Your task to perform on an android device: set default search engine in the chrome app Image 0: 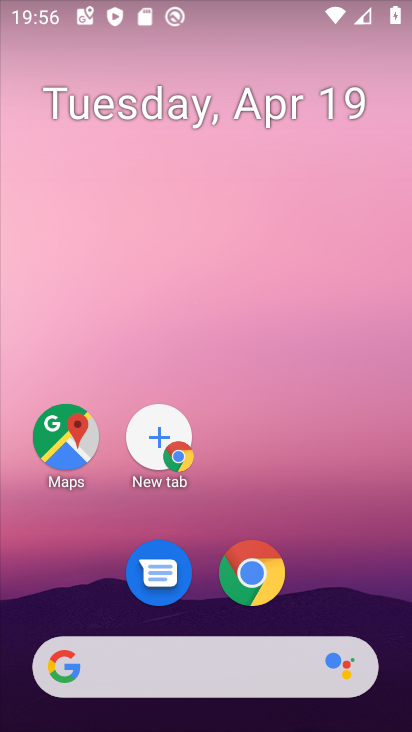
Step 0: click (256, 574)
Your task to perform on an android device: set default search engine in the chrome app Image 1: 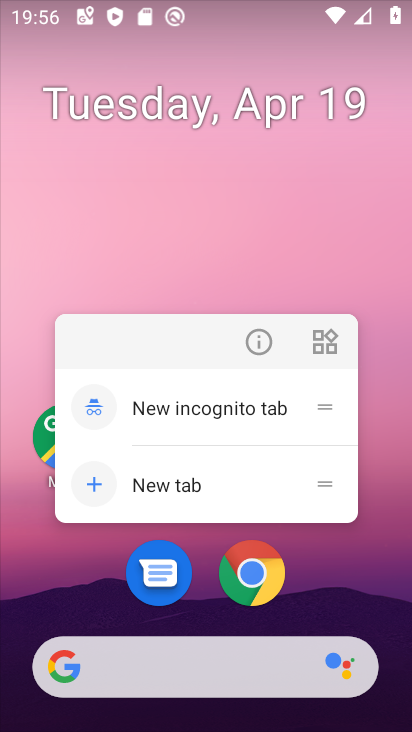
Step 1: click (256, 574)
Your task to perform on an android device: set default search engine in the chrome app Image 2: 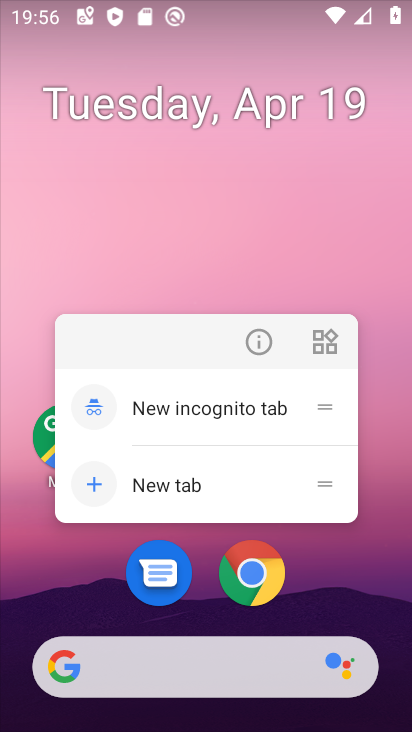
Step 2: click (256, 574)
Your task to perform on an android device: set default search engine in the chrome app Image 3: 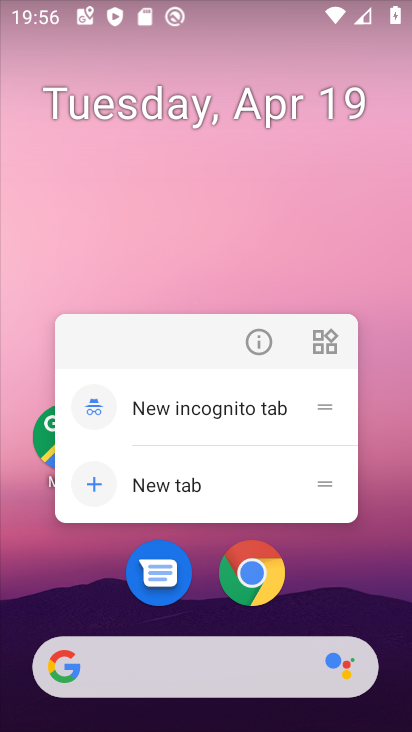
Step 3: click (256, 574)
Your task to perform on an android device: set default search engine in the chrome app Image 4: 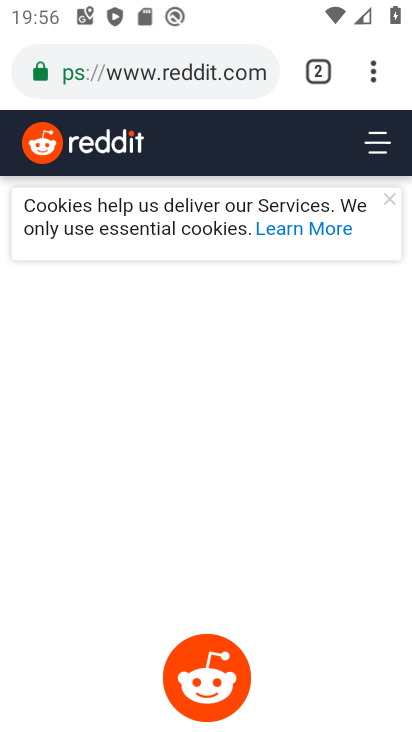
Step 4: click (369, 71)
Your task to perform on an android device: set default search engine in the chrome app Image 5: 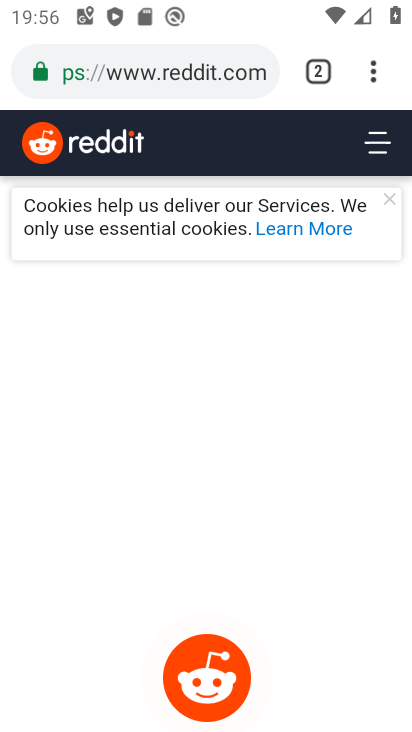
Step 5: click (369, 71)
Your task to perform on an android device: set default search engine in the chrome app Image 6: 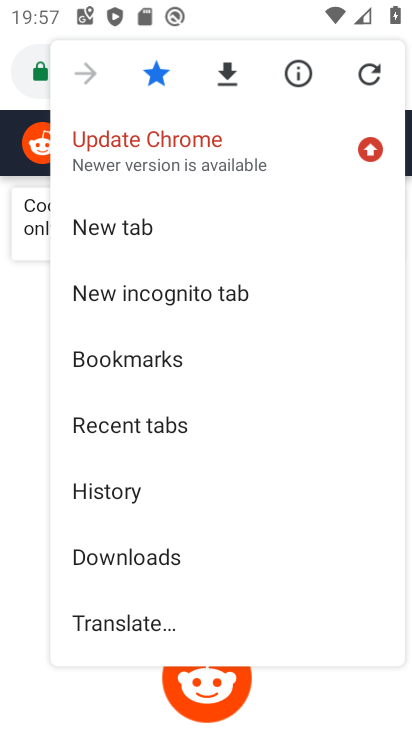
Step 6: click (411, 127)
Your task to perform on an android device: set default search engine in the chrome app Image 7: 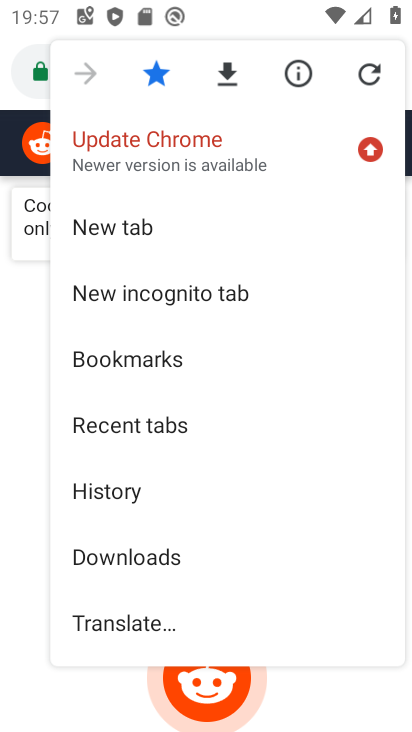
Step 7: drag from (397, 111) to (394, 28)
Your task to perform on an android device: set default search engine in the chrome app Image 8: 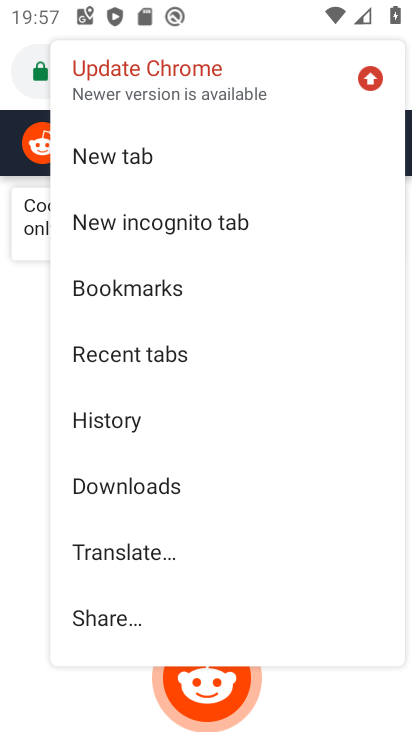
Step 8: drag from (337, 538) to (330, 80)
Your task to perform on an android device: set default search engine in the chrome app Image 9: 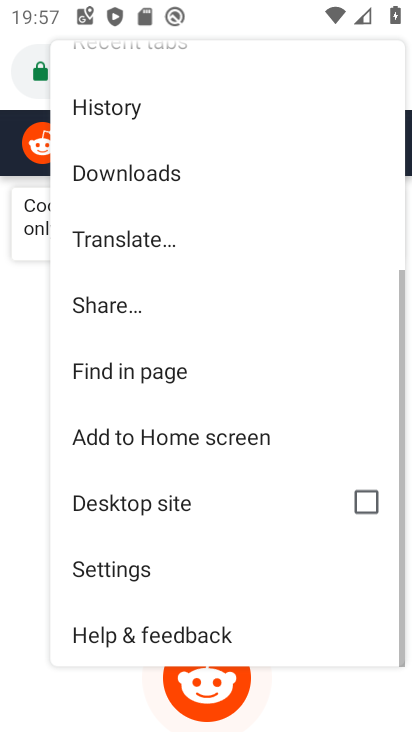
Step 9: click (107, 569)
Your task to perform on an android device: set default search engine in the chrome app Image 10: 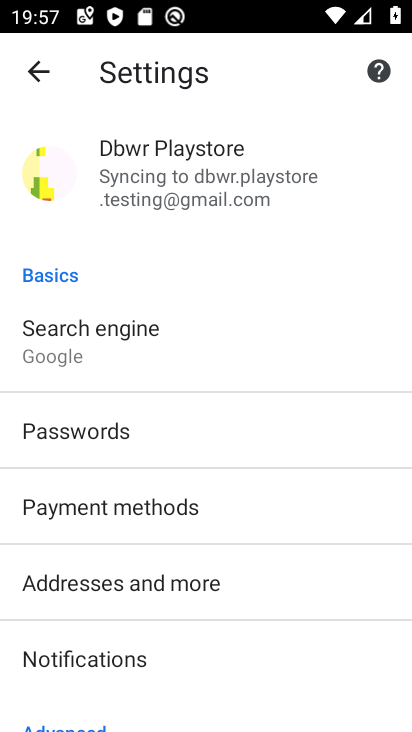
Step 10: click (84, 340)
Your task to perform on an android device: set default search engine in the chrome app Image 11: 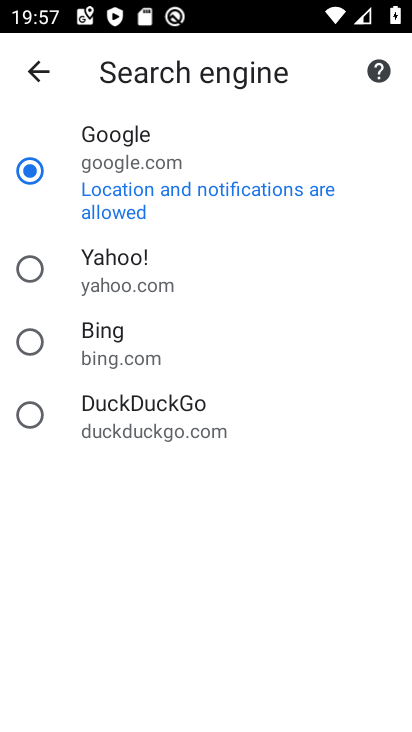
Step 11: task complete